Your task to perform on an android device: Open Google Chrome and open the bookmarks view Image 0: 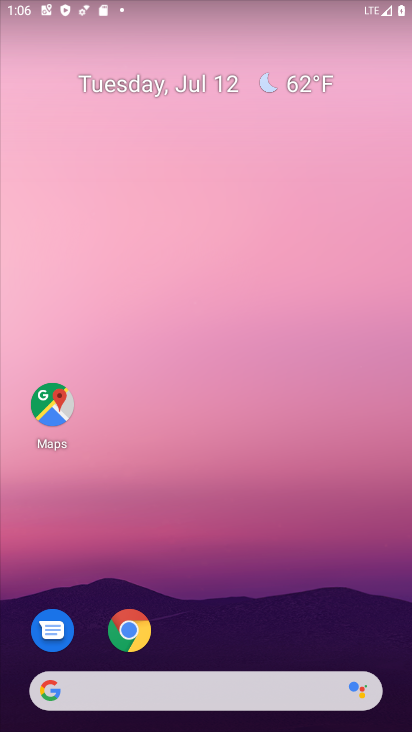
Step 0: click (128, 629)
Your task to perform on an android device: Open Google Chrome and open the bookmarks view Image 1: 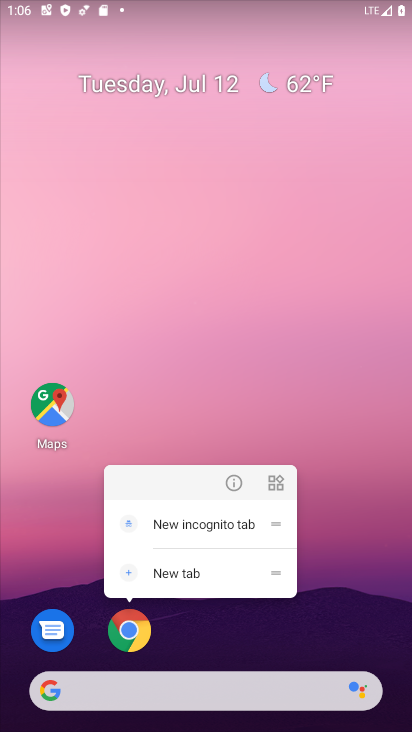
Step 1: click (128, 629)
Your task to perform on an android device: Open Google Chrome and open the bookmarks view Image 2: 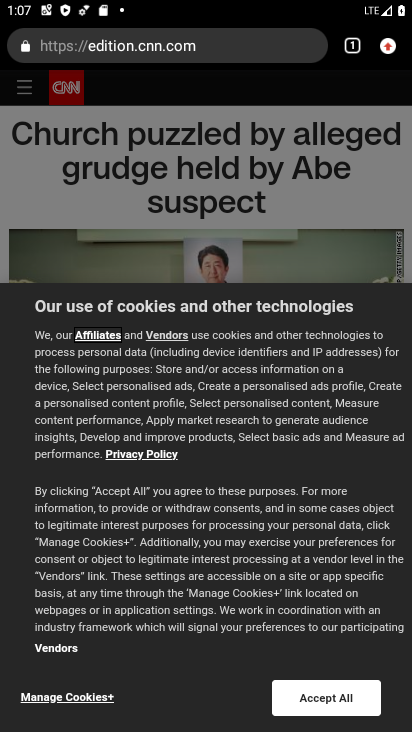
Step 2: click (389, 42)
Your task to perform on an android device: Open Google Chrome and open the bookmarks view Image 3: 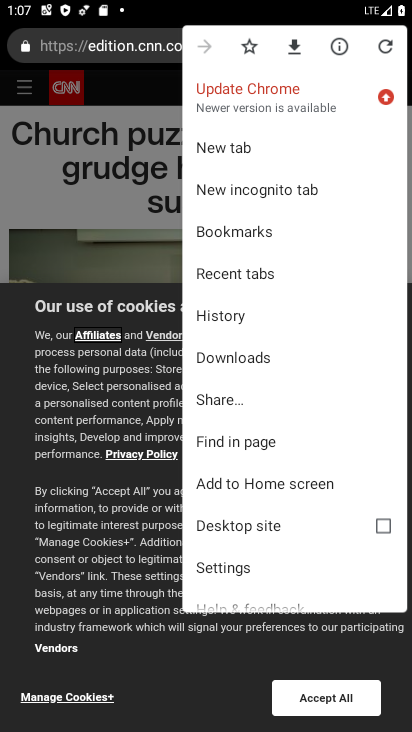
Step 3: click (268, 231)
Your task to perform on an android device: Open Google Chrome and open the bookmarks view Image 4: 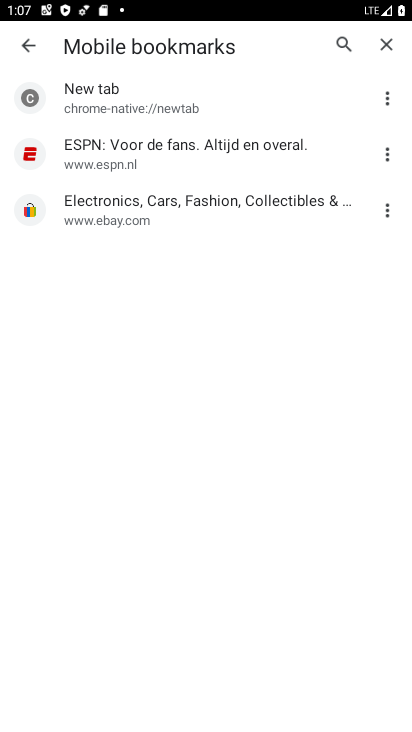
Step 4: click (145, 149)
Your task to perform on an android device: Open Google Chrome and open the bookmarks view Image 5: 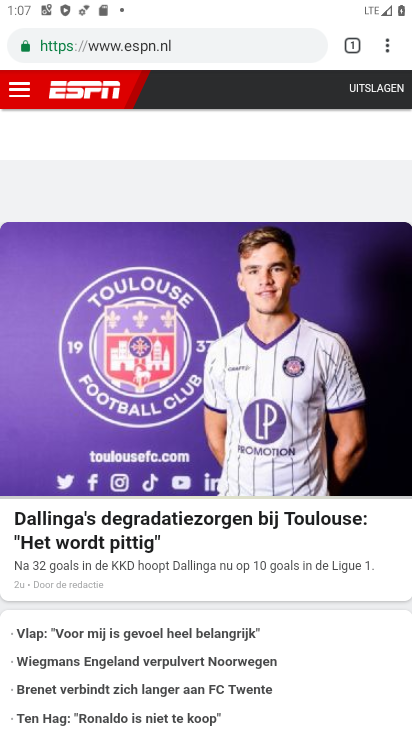
Step 5: task complete